Your task to perform on an android device: turn notification dots off Image 0: 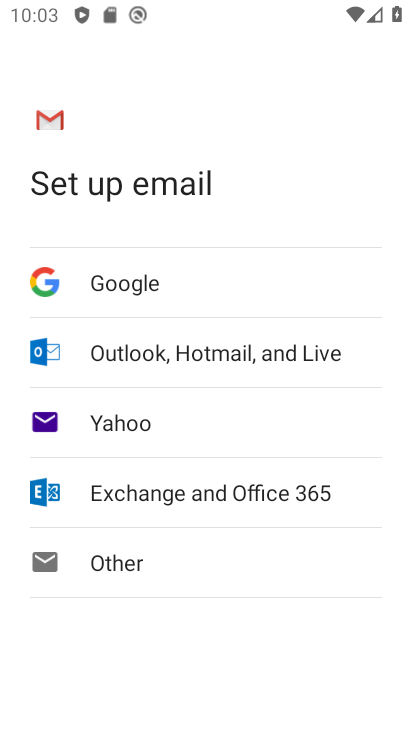
Step 0: press home button
Your task to perform on an android device: turn notification dots off Image 1: 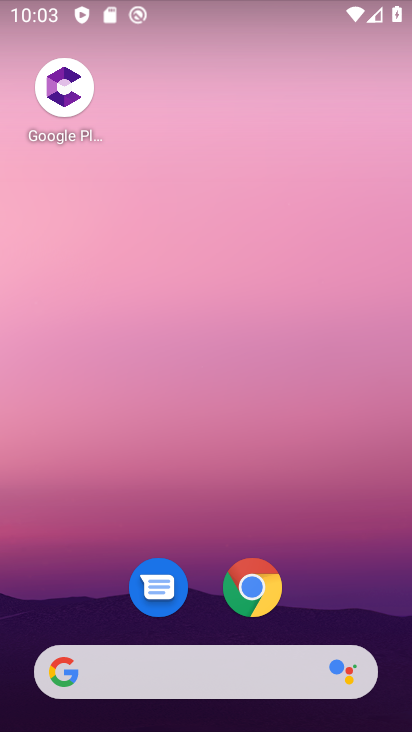
Step 1: drag from (352, 601) to (312, 31)
Your task to perform on an android device: turn notification dots off Image 2: 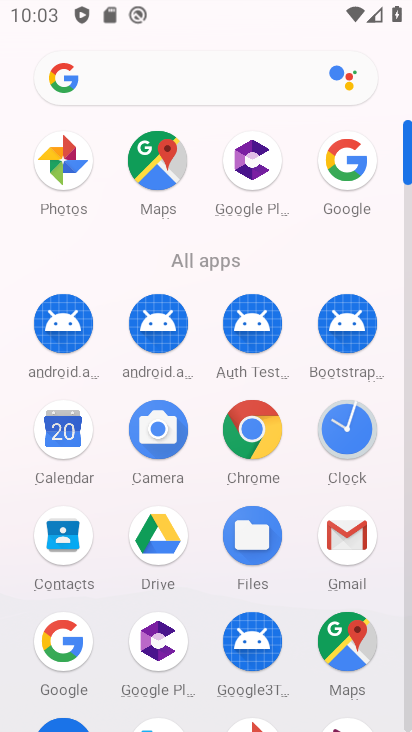
Step 2: drag from (225, 271) to (189, 3)
Your task to perform on an android device: turn notification dots off Image 3: 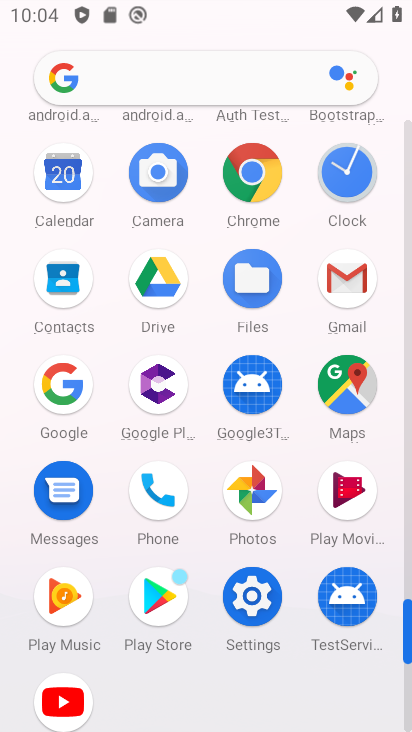
Step 3: click (253, 594)
Your task to perform on an android device: turn notification dots off Image 4: 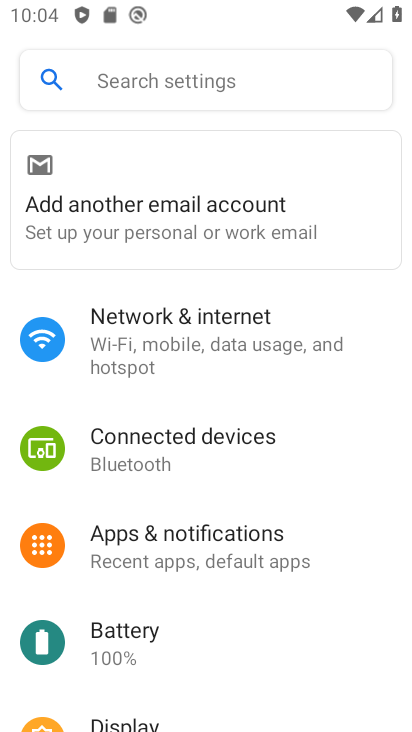
Step 4: drag from (232, 703) to (207, 328)
Your task to perform on an android device: turn notification dots off Image 5: 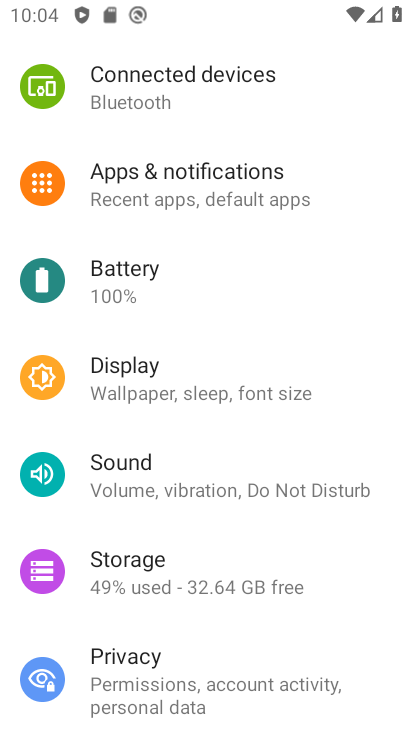
Step 5: click (192, 188)
Your task to perform on an android device: turn notification dots off Image 6: 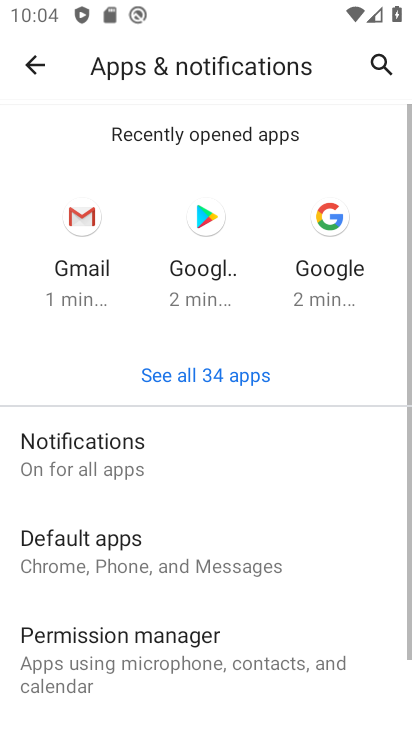
Step 6: click (130, 469)
Your task to perform on an android device: turn notification dots off Image 7: 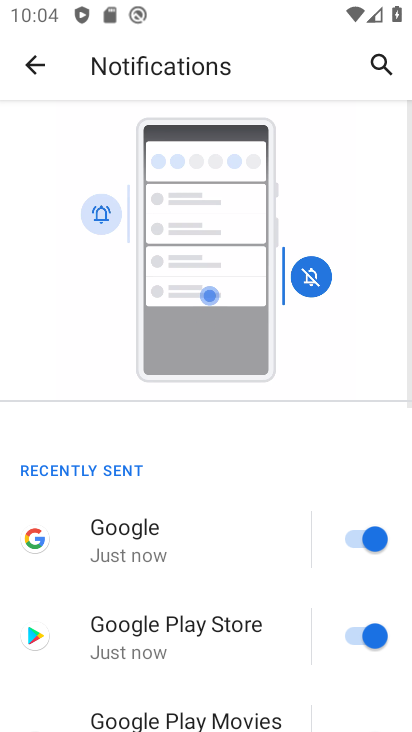
Step 7: drag from (201, 605) to (216, 125)
Your task to perform on an android device: turn notification dots off Image 8: 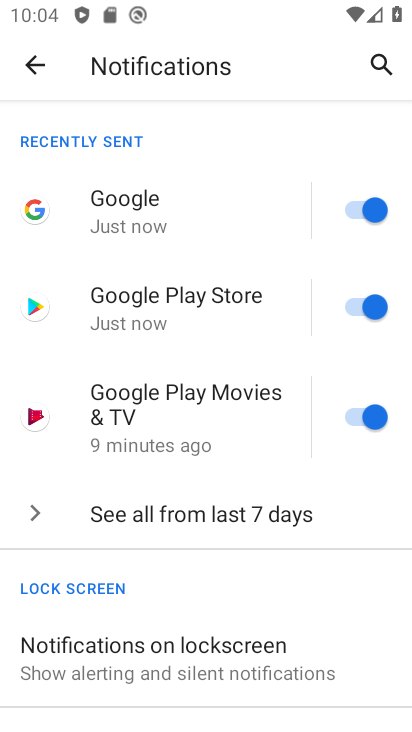
Step 8: drag from (208, 683) to (173, 205)
Your task to perform on an android device: turn notification dots off Image 9: 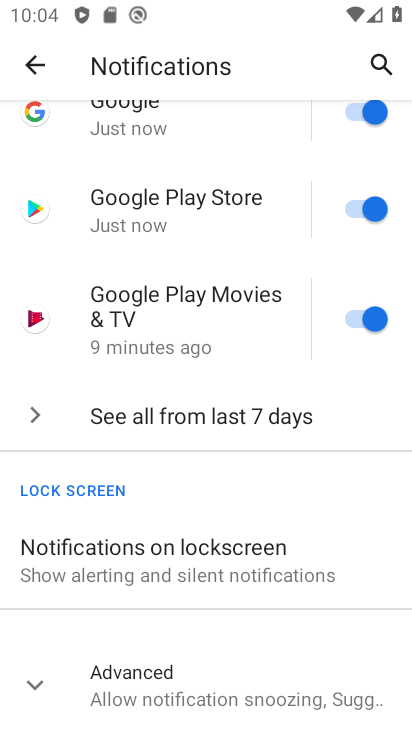
Step 9: click (173, 672)
Your task to perform on an android device: turn notification dots off Image 10: 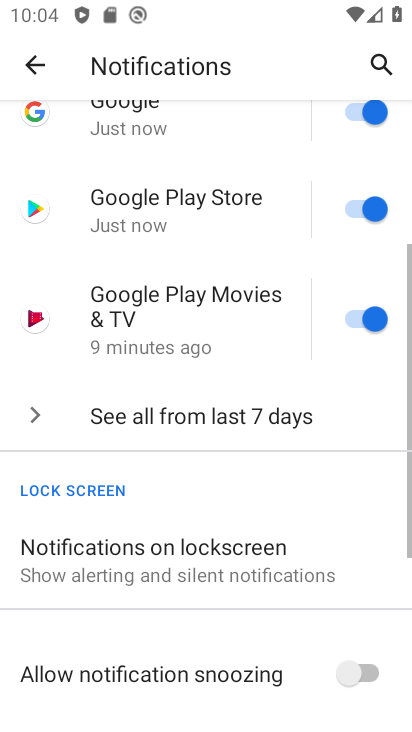
Step 10: drag from (171, 654) to (172, 90)
Your task to perform on an android device: turn notification dots off Image 11: 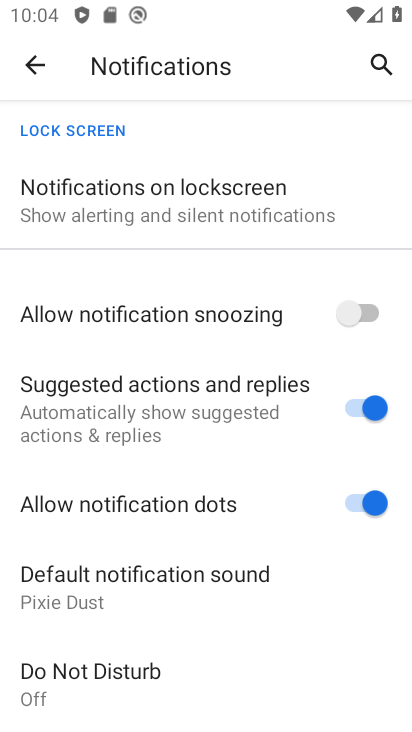
Step 11: click (212, 506)
Your task to perform on an android device: turn notification dots off Image 12: 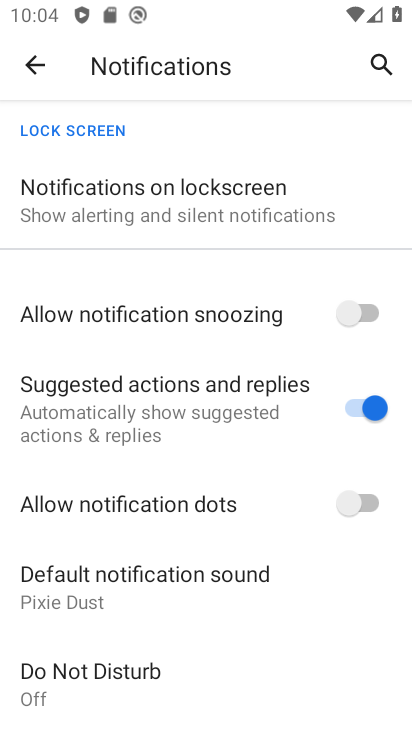
Step 12: task complete